Your task to perform on an android device: Open a new Chrome window Image 0: 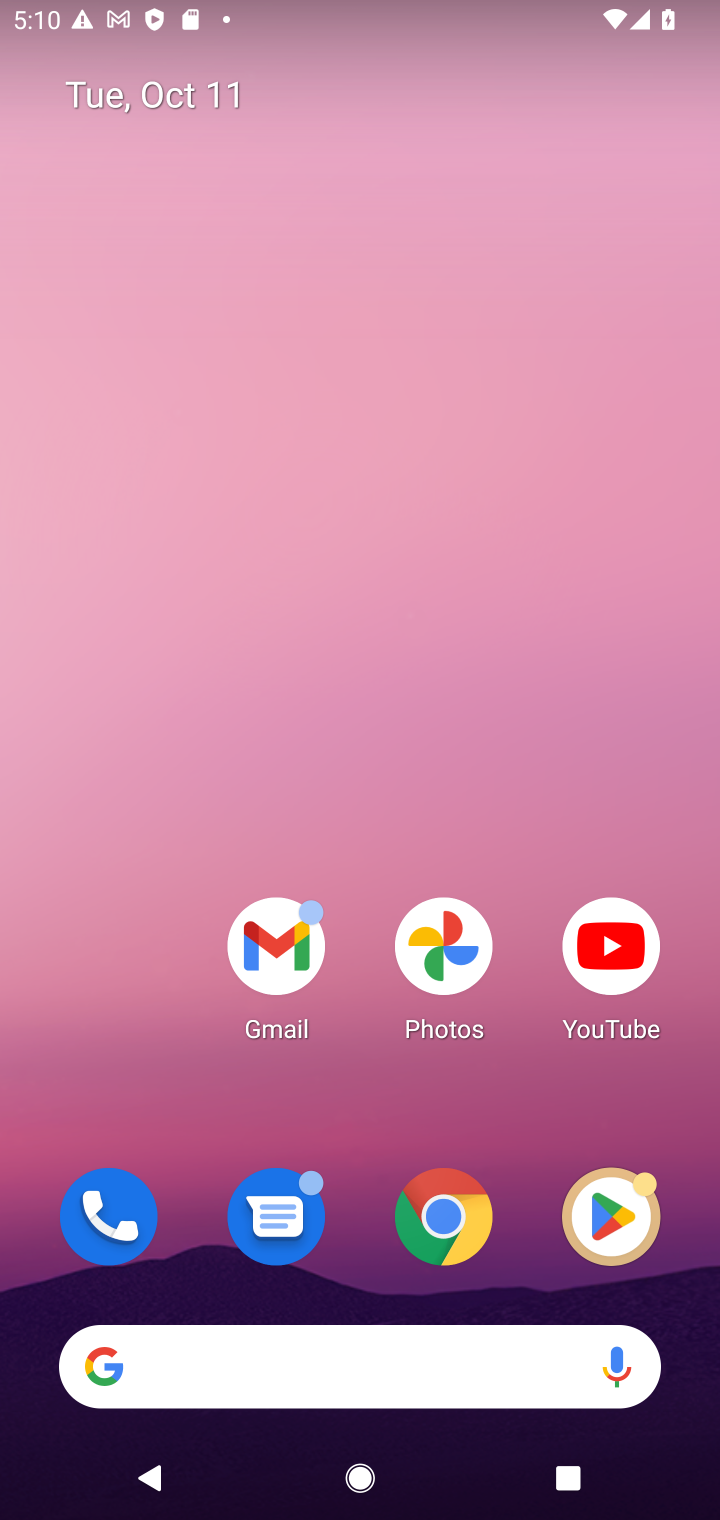
Step 0: click (450, 1216)
Your task to perform on an android device: Open a new Chrome window Image 1: 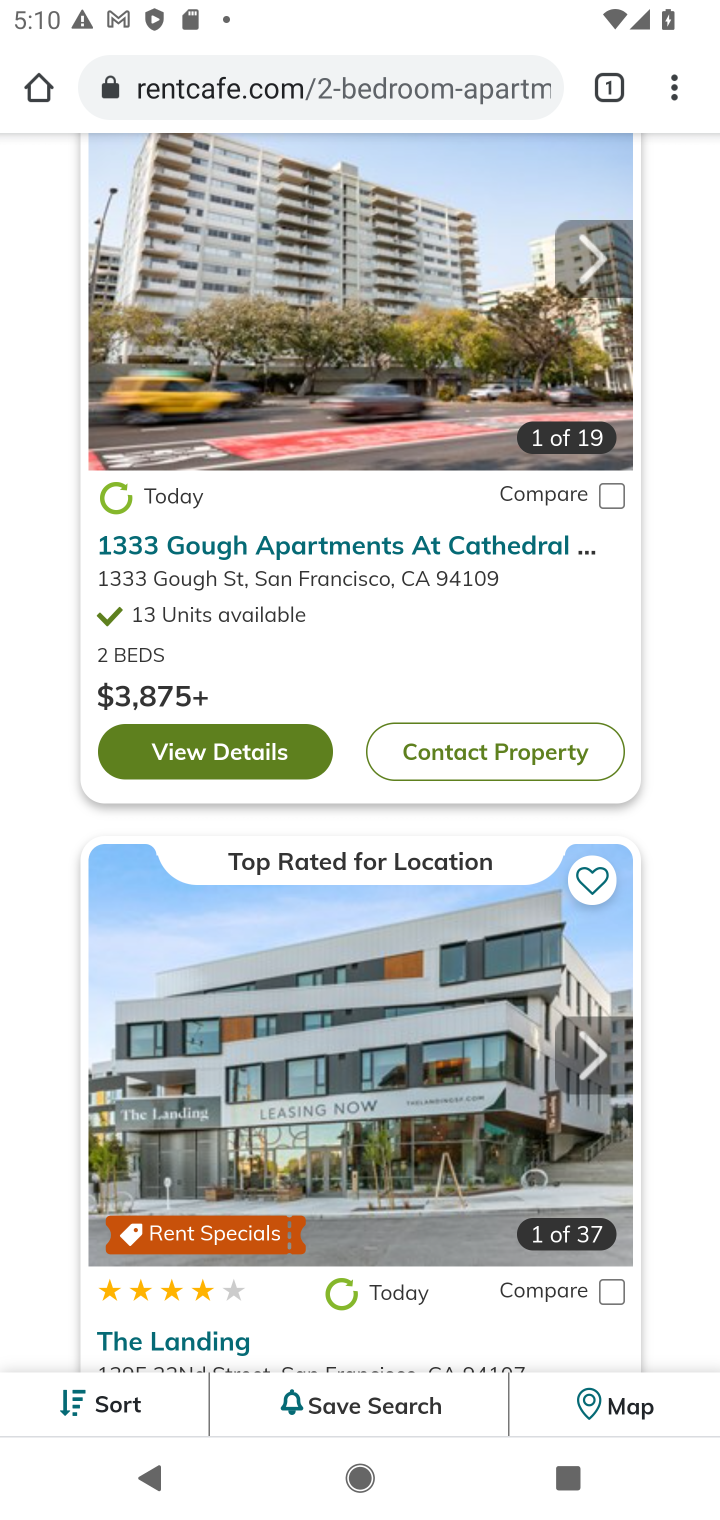
Step 1: click (696, 84)
Your task to perform on an android device: Open a new Chrome window Image 2: 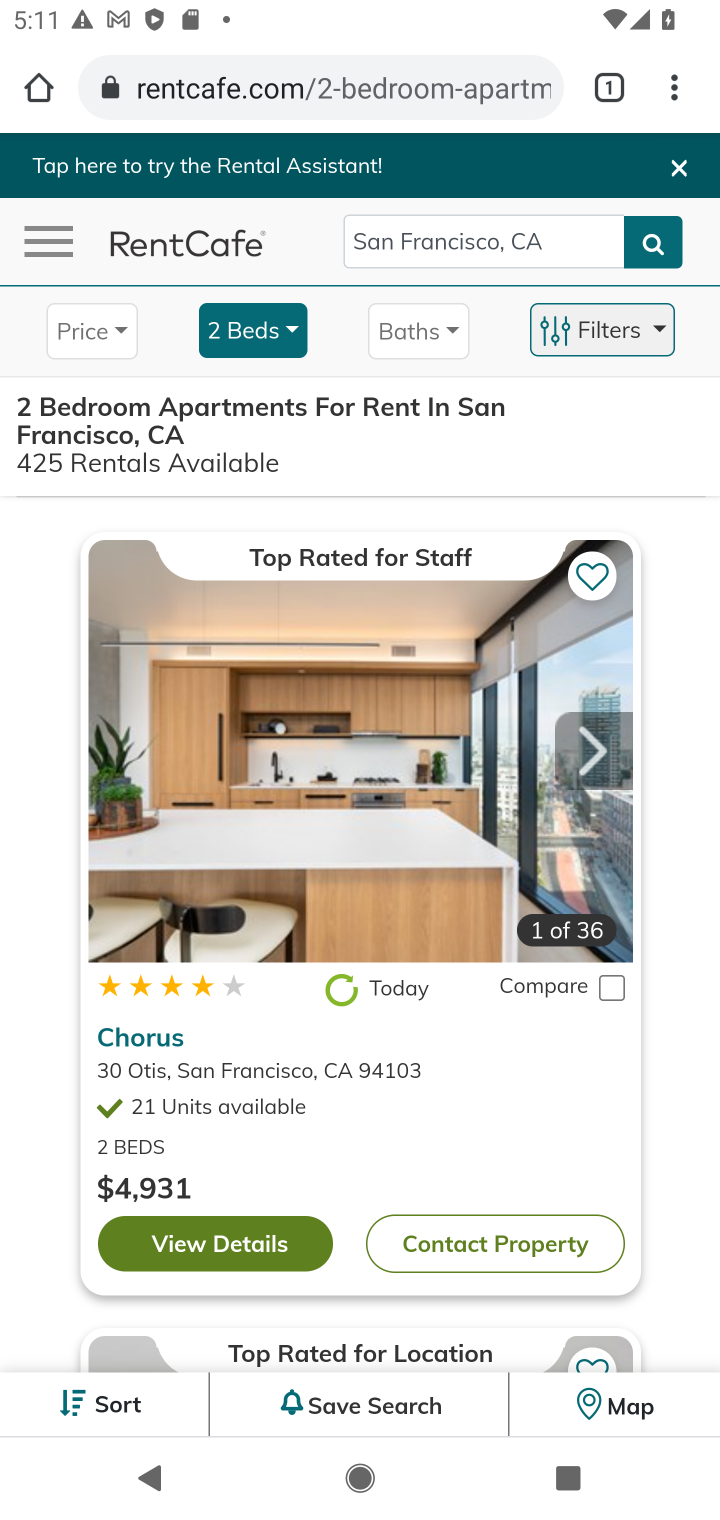
Step 2: click (703, 88)
Your task to perform on an android device: Open a new Chrome window Image 3: 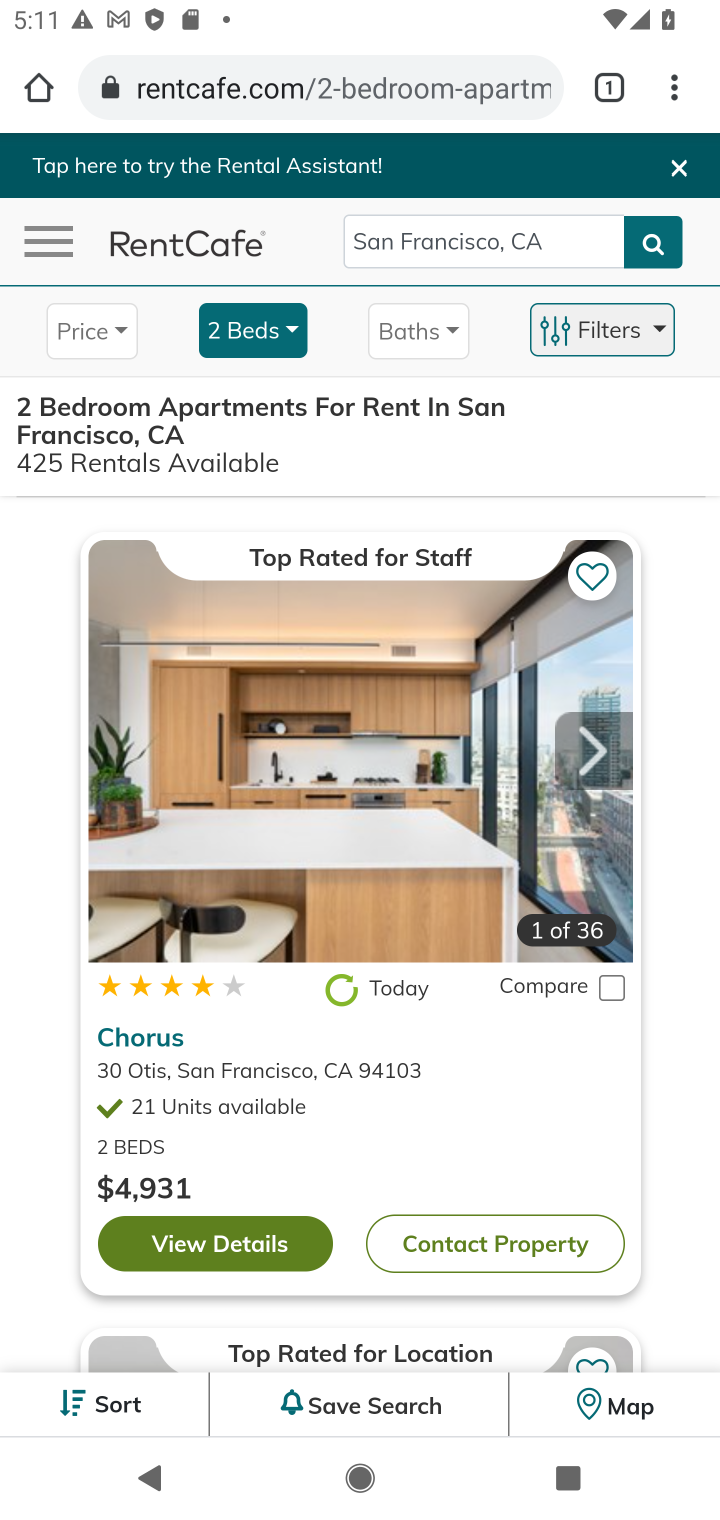
Step 3: task complete